Your task to perform on an android device: turn off data saver in the chrome app Image 0: 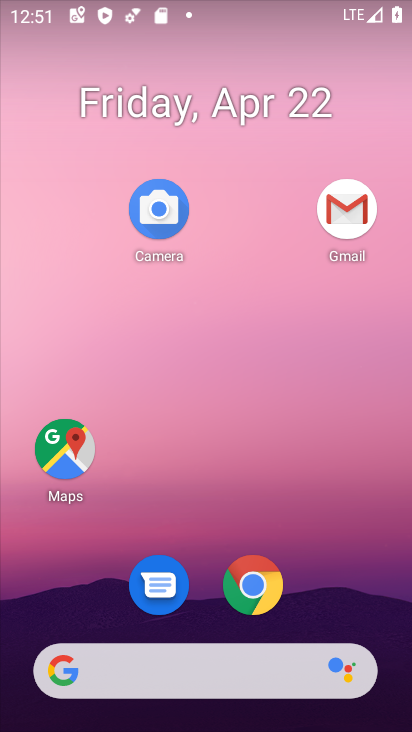
Step 0: click (252, 583)
Your task to perform on an android device: turn off data saver in the chrome app Image 1: 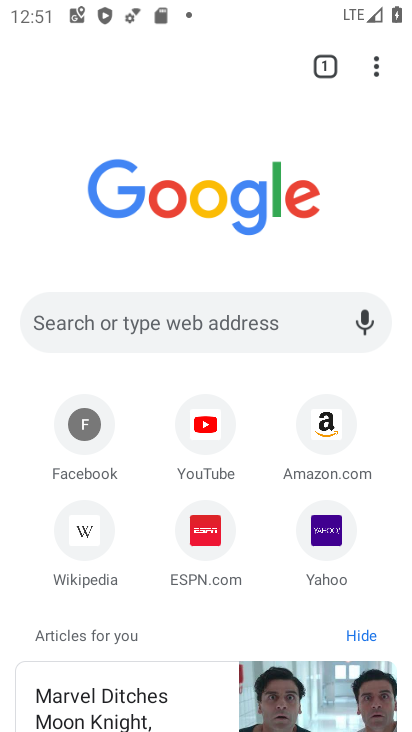
Step 1: drag from (374, 69) to (302, 546)
Your task to perform on an android device: turn off data saver in the chrome app Image 2: 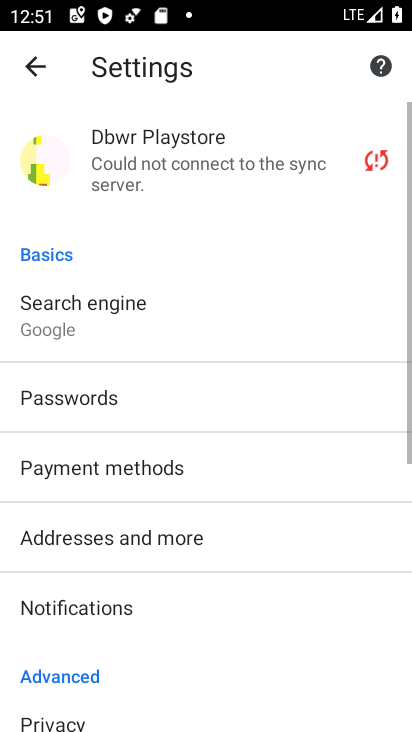
Step 2: drag from (246, 632) to (245, 168)
Your task to perform on an android device: turn off data saver in the chrome app Image 3: 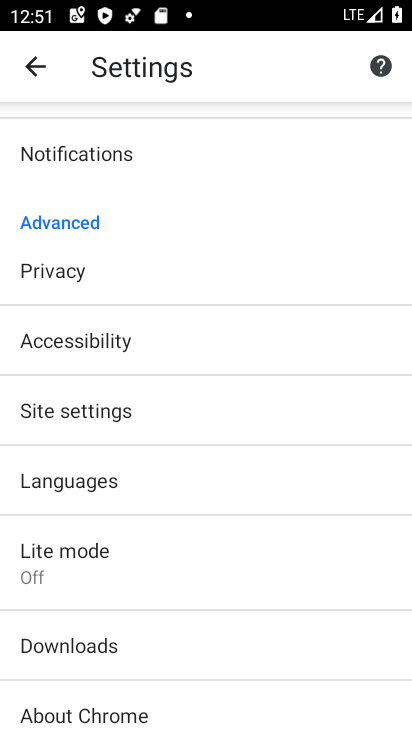
Step 3: click (167, 556)
Your task to perform on an android device: turn off data saver in the chrome app Image 4: 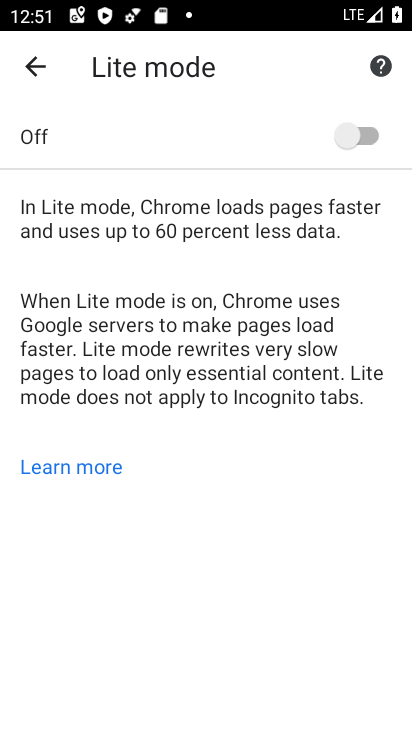
Step 4: task complete